Your task to perform on an android device: Find coffee shops on Maps Image 0: 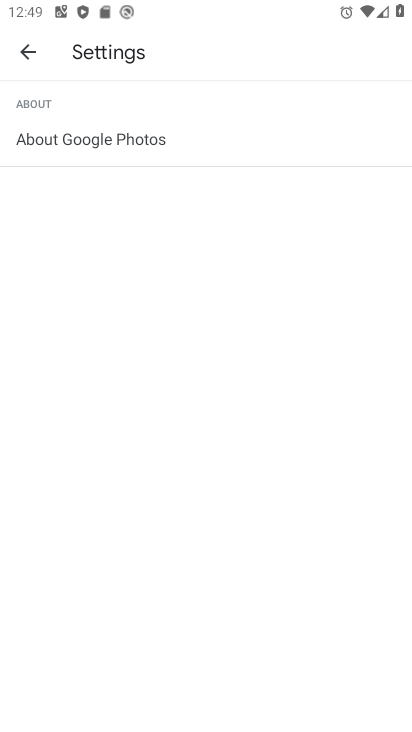
Step 0: press back button
Your task to perform on an android device: Find coffee shops on Maps Image 1: 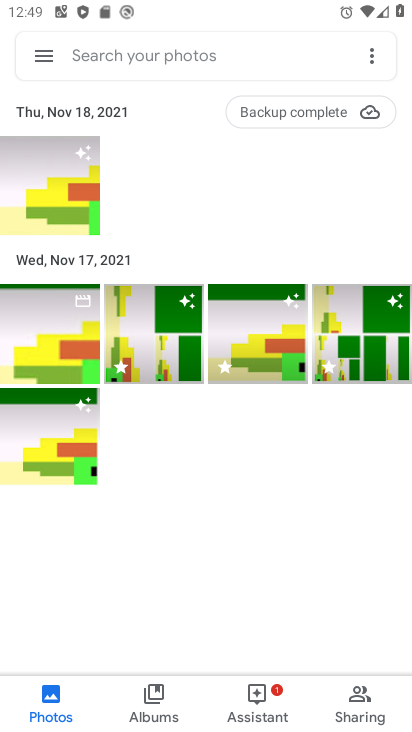
Step 1: press home button
Your task to perform on an android device: Find coffee shops on Maps Image 2: 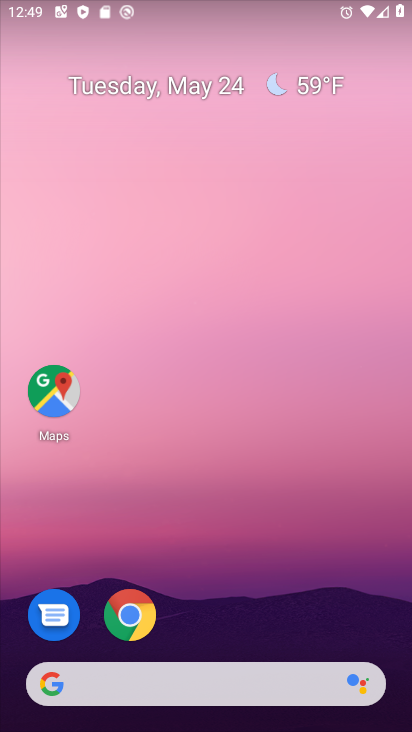
Step 2: click (51, 387)
Your task to perform on an android device: Find coffee shops on Maps Image 3: 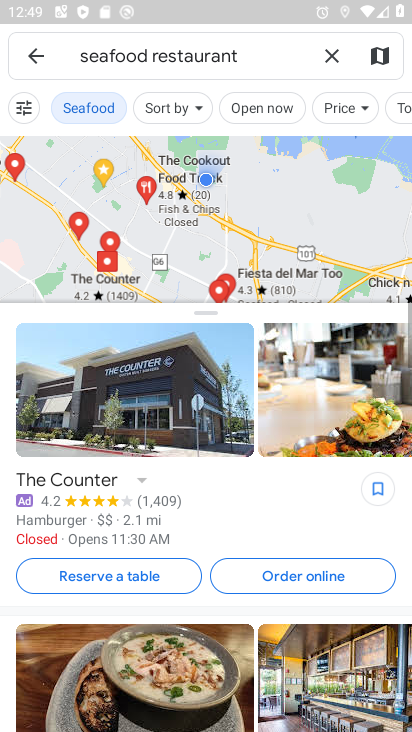
Step 3: click (32, 51)
Your task to perform on an android device: Find coffee shops on Maps Image 4: 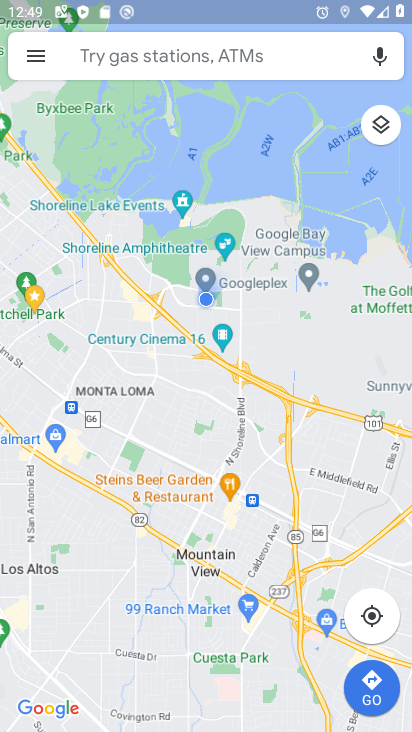
Step 4: click (285, 50)
Your task to perform on an android device: Find coffee shops on Maps Image 5: 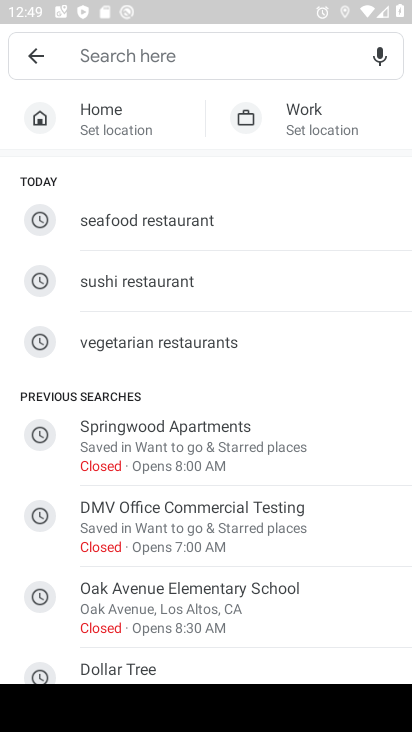
Step 5: type " coffee shops "
Your task to perform on an android device: Find coffee shops on Maps Image 6: 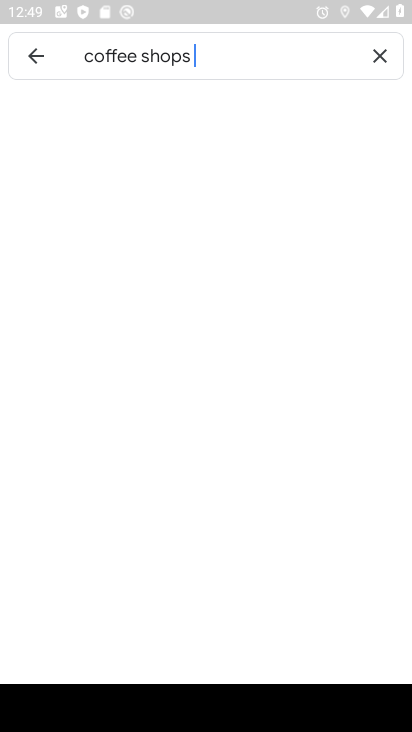
Step 6: type ""
Your task to perform on an android device: Find coffee shops on Maps Image 7: 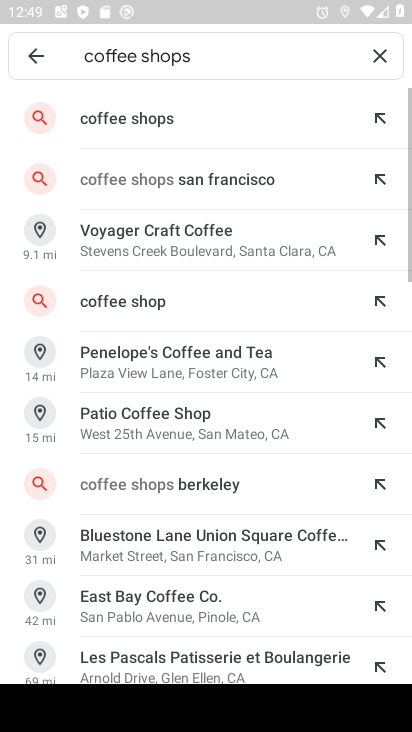
Step 7: click (159, 123)
Your task to perform on an android device: Find coffee shops on Maps Image 8: 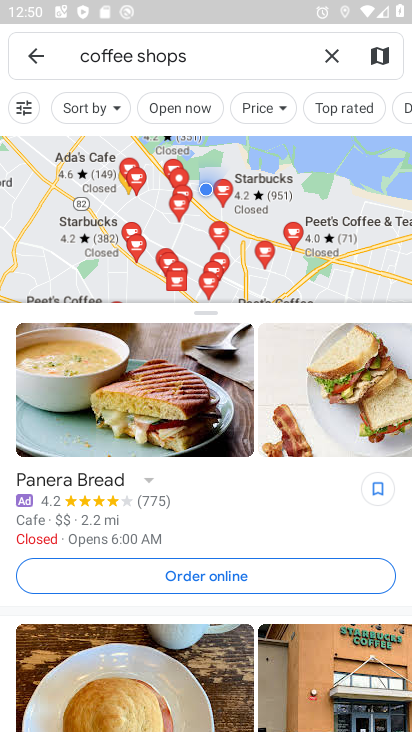
Step 8: task complete